Your task to perform on an android device: Toggle the flashlight Image 0: 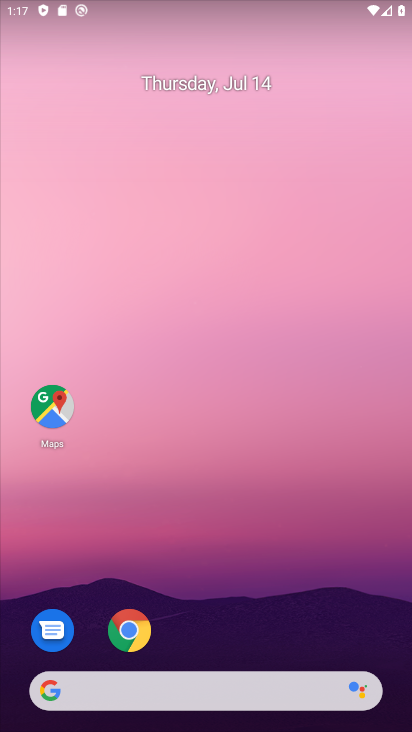
Step 0: drag from (214, 623) to (277, 29)
Your task to perform on an android device: Toggle the flashlight Image 1: 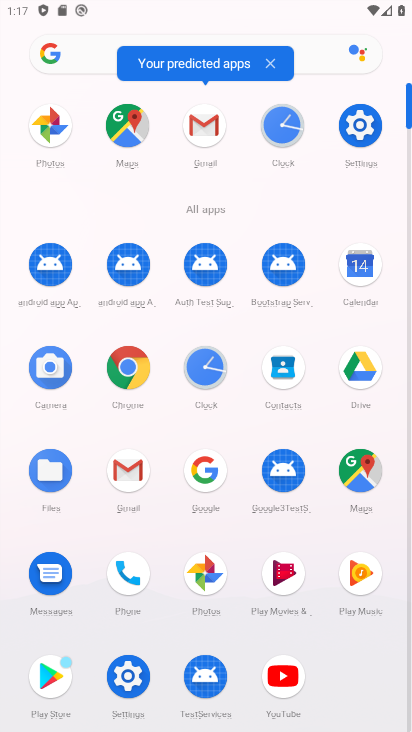
Step 1: click (356, 124)
Your task to perform on an android device: Toggle the flashlight Image 2: 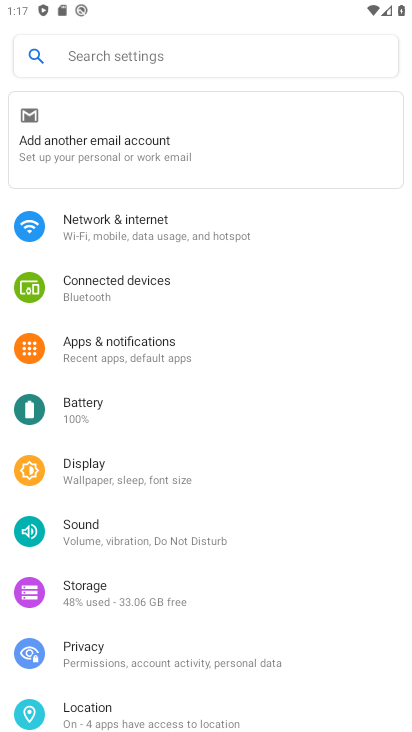
Step 2: click (125, 51)
Your task to perform on an android device: Toggle the flashlight Image 3: 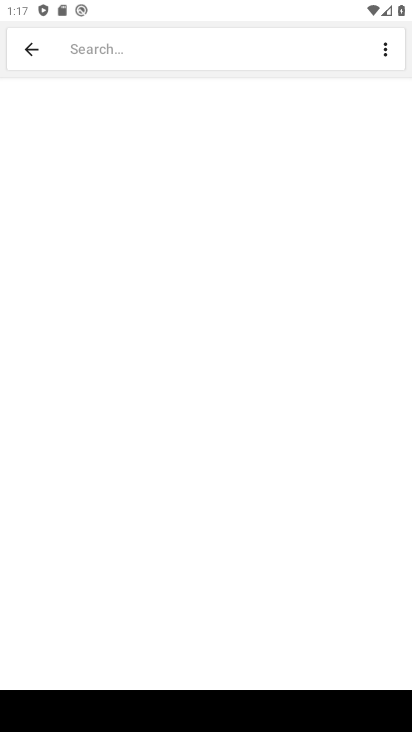
Step 3: type "flashlight"
Your task to perform on an android device: Toggle the flashlight Image 4: 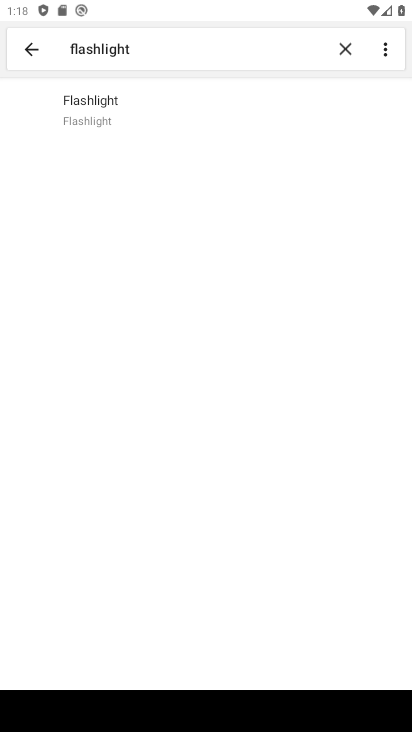
Step 4: click (110, 108)
Your task to perform on an android device: Toggle the flashlight Image 5: 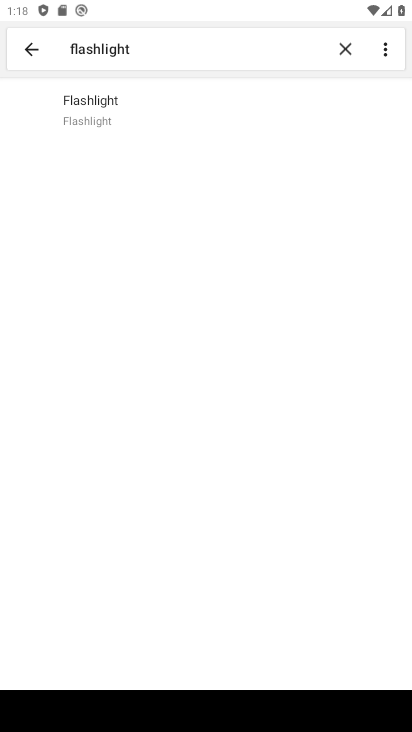
Step 5: click (110, 108)
Your task to perform on an android device: Toggle the flashlight Image 6: 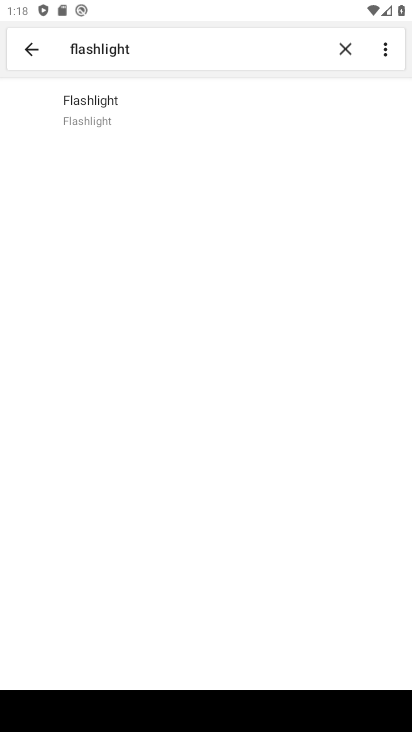
Step 6: task complete